Your task to perform on an android device: open app "Microsoft Excel" (install if not already installed) Image 0: 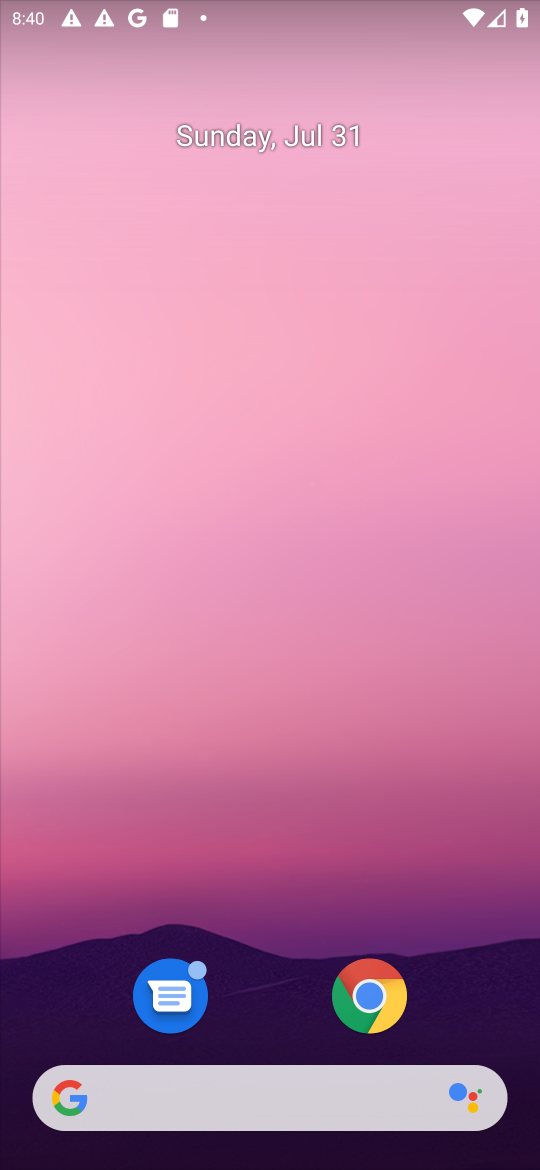
Step 0: press home button
Your task to perform on an android device: open app "Microsoft Excel" (install if not already installed) Image 1: 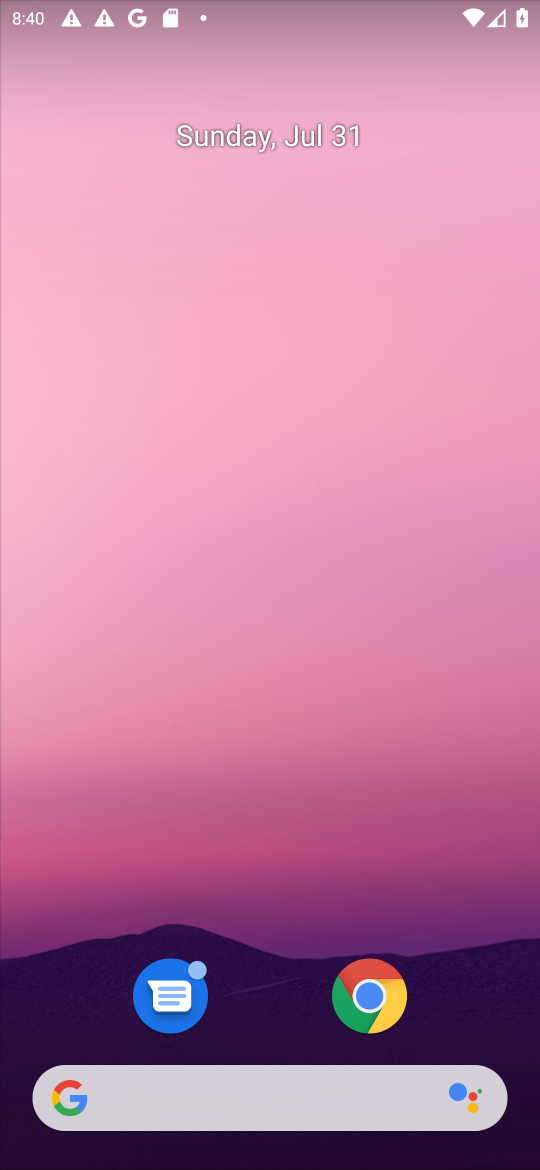
Step 1: drag from (418, 466) to (418, 64)
Your task to perform on an android device: open app "Microsoft Excel" (install if not already installed) Image 2: 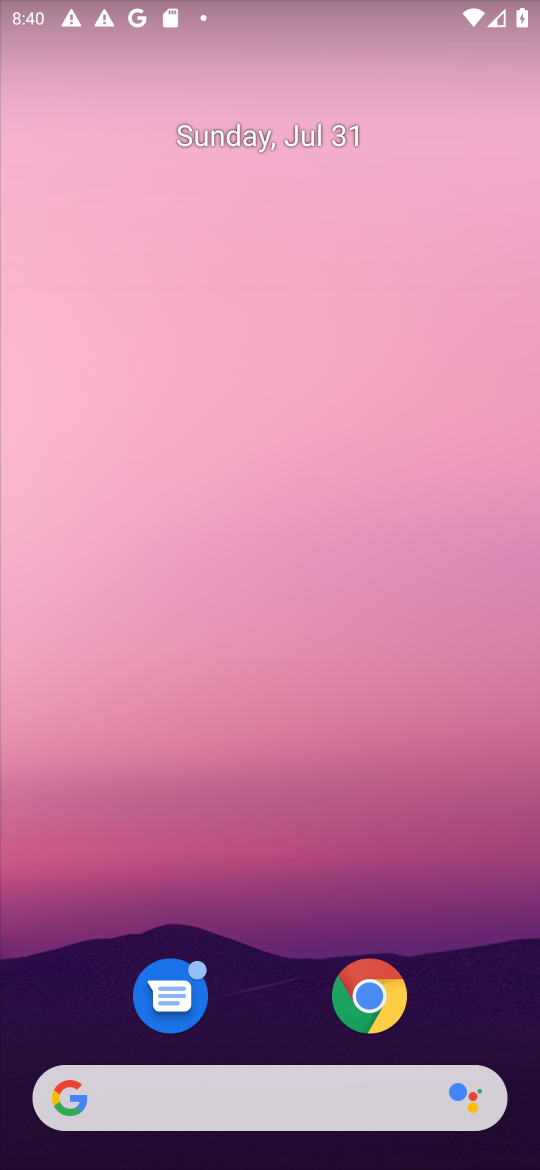
Step 2: drag from (439, 1006) to (445, 96)
Your task to perform on an android device: open app "Microsoft Excel" (install if not already installed) Image 3: 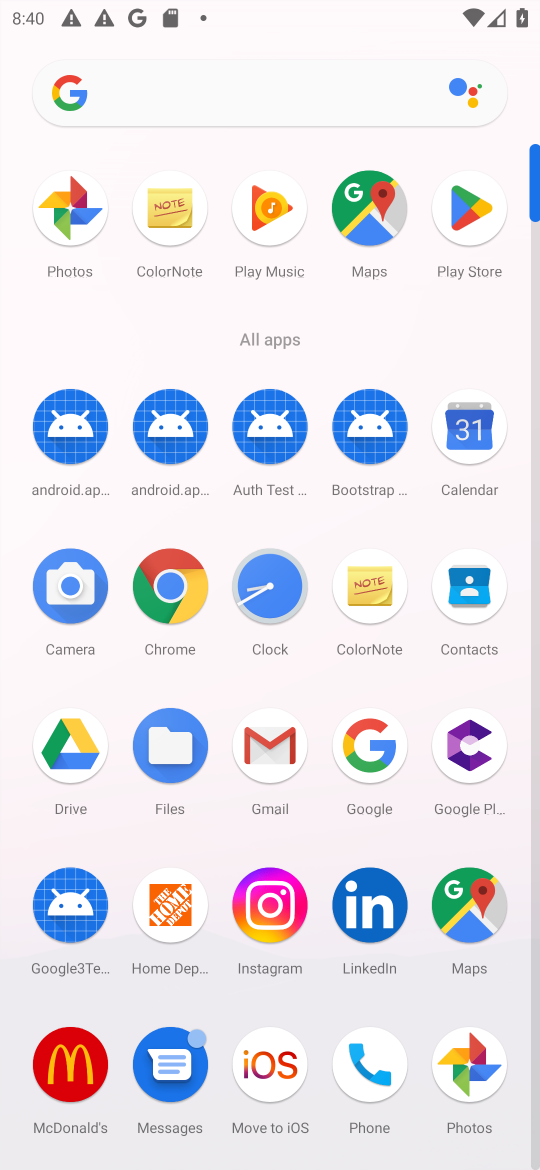
Step 3: click (476, 204)
Your task to perform on an android device: open app "Microsoft Excel" (install if not already installed) Image 4: 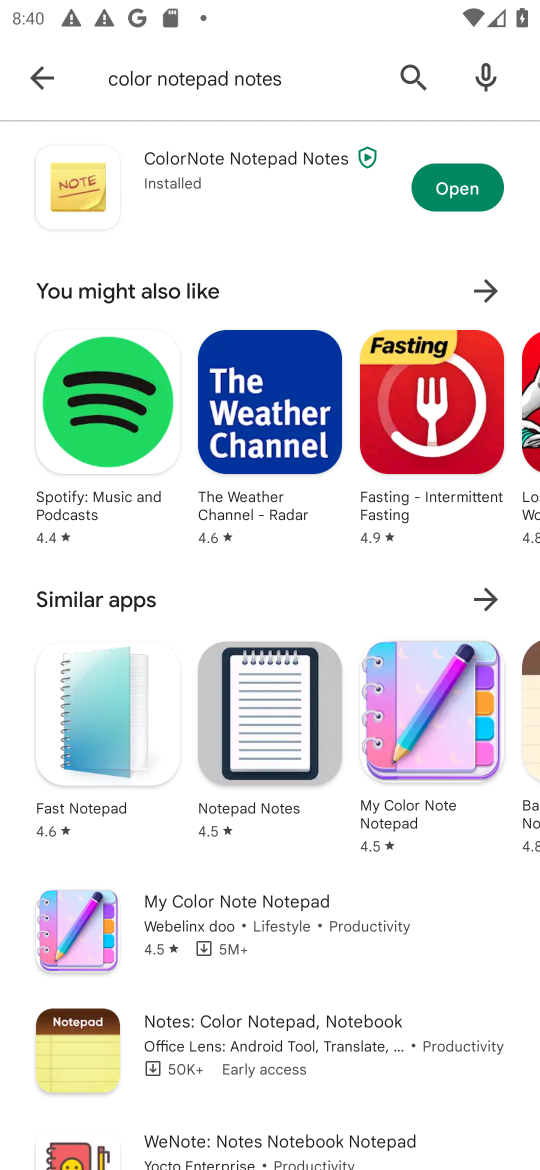
Step 4: click (409, 57)
Your task to perform on an android device: open app "Microsoft Excel" (install if not already installed) Image 5: 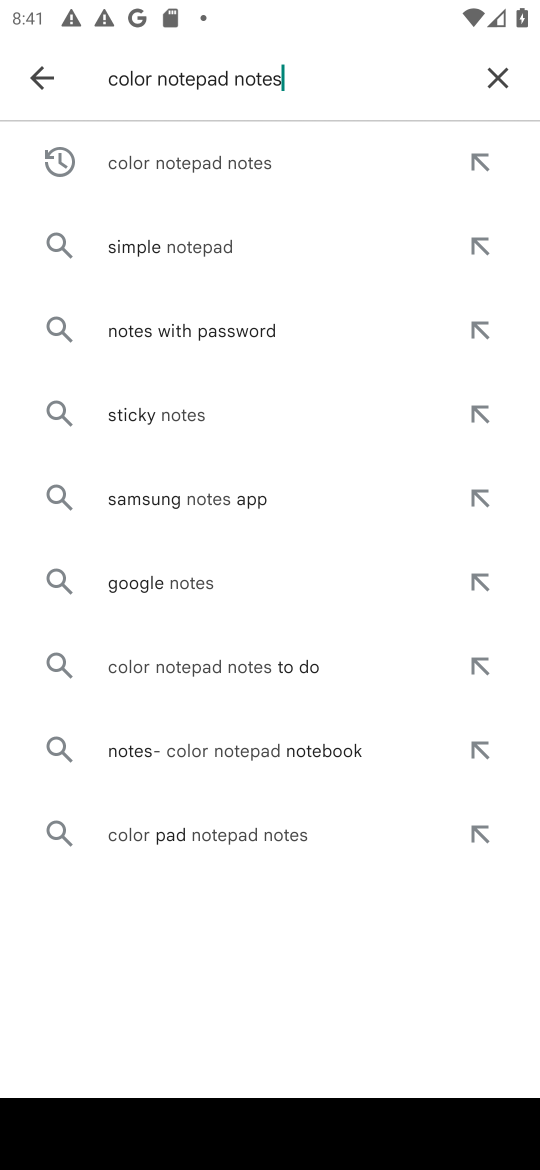
Step 5: click (485, 86)
Your task to perform on an android device: open app "Microsoft Excel" (install if not already installed) Image 6: 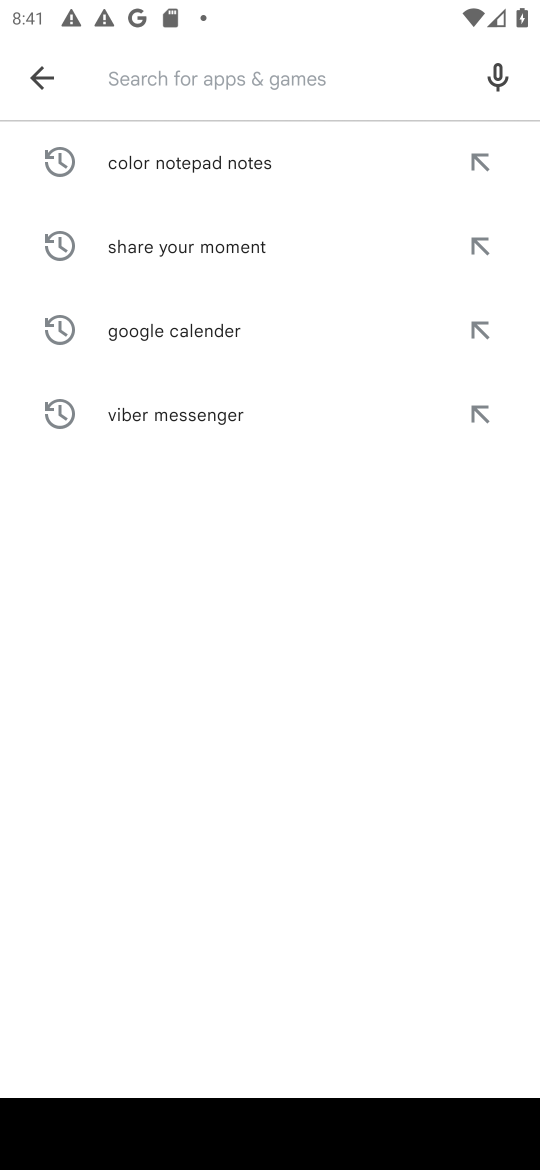
Step 6: click (201, 71)
Your task to perform on an android device: open app "Microsoft Excel" (install if not already installed) Image 7: 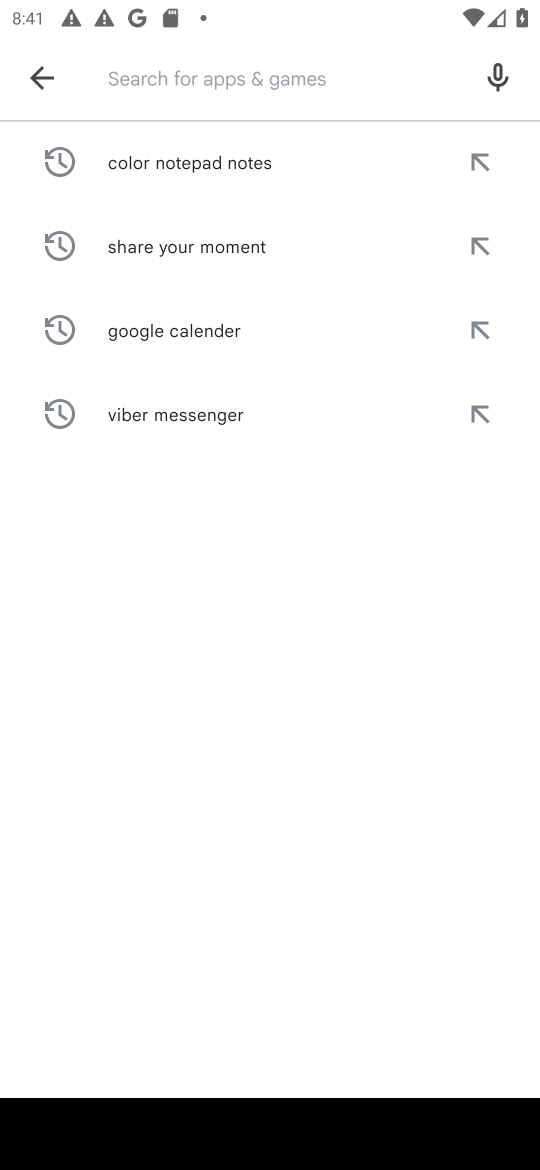
Step 7: type "microsoft excel"
Your task to perform on an android device: open app "Microsoft Excel" (install if not already installed) Image 8: 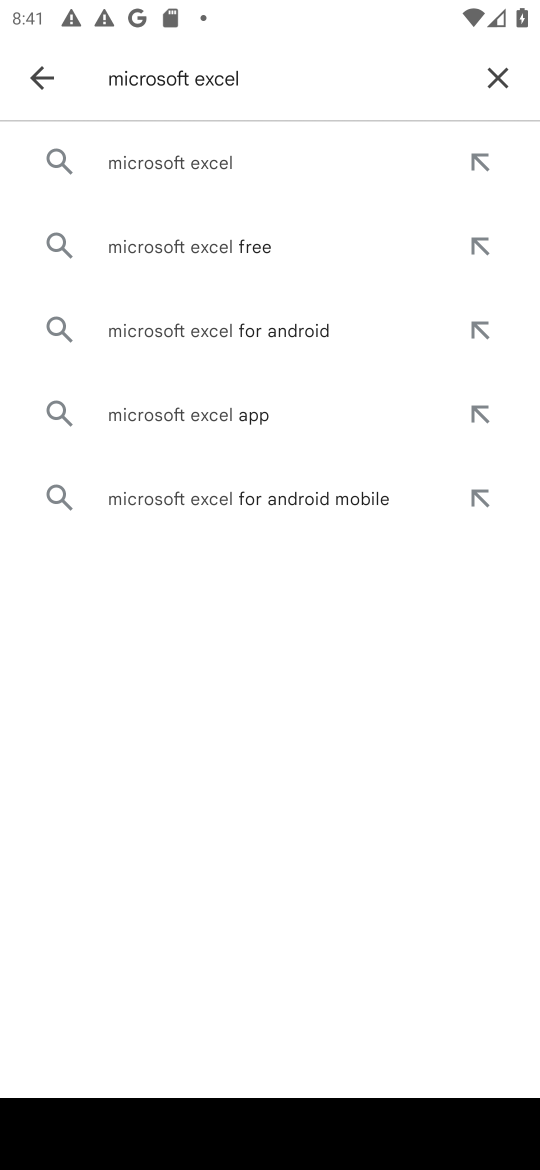
Step 8: click (221, 164)
Your task to perform on an android device: open app "Microsoft Excel" (install if not already installed) Image 9: 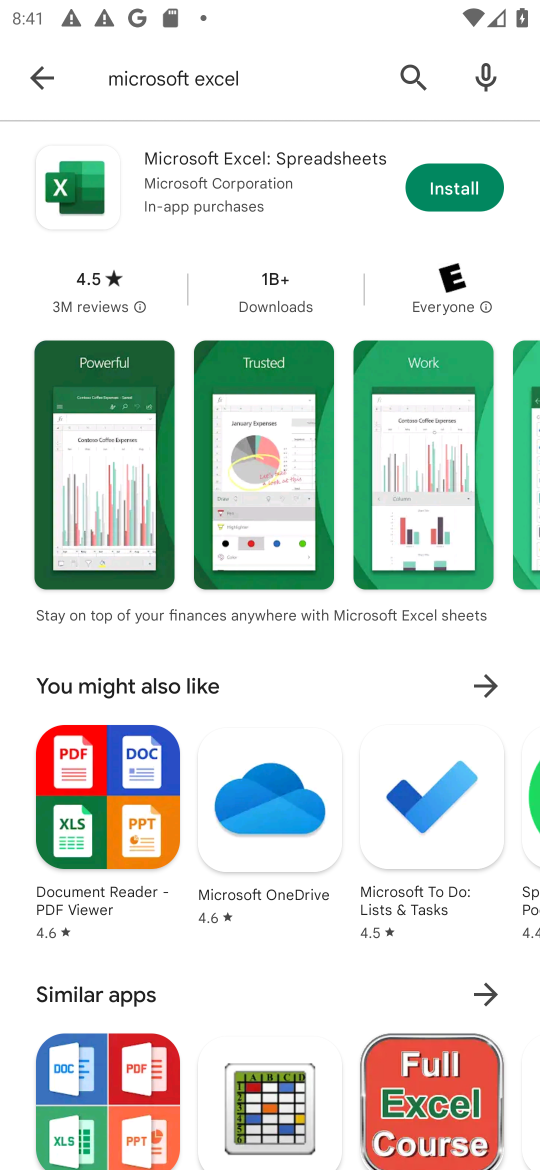
Step 9: click (448, 180)
Your task to perform on an android device: open app "Microsoft Excel" (install if not already installed) Image 10: 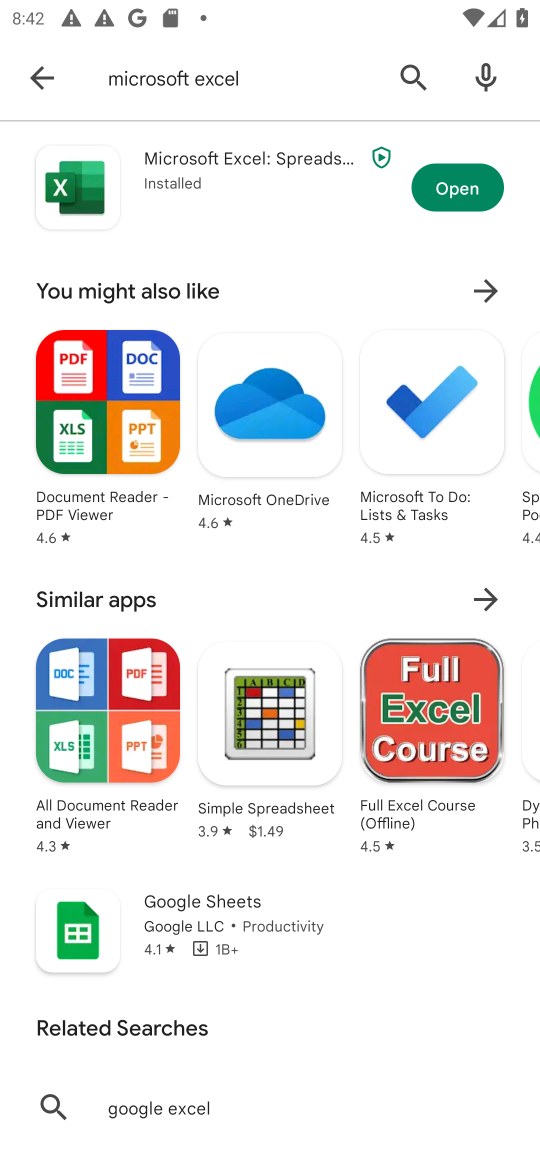
Step 10: click (464, 193)
Your task to perform on an android device: open app "Microsoft Excel" (install if not already installed) Image 11: 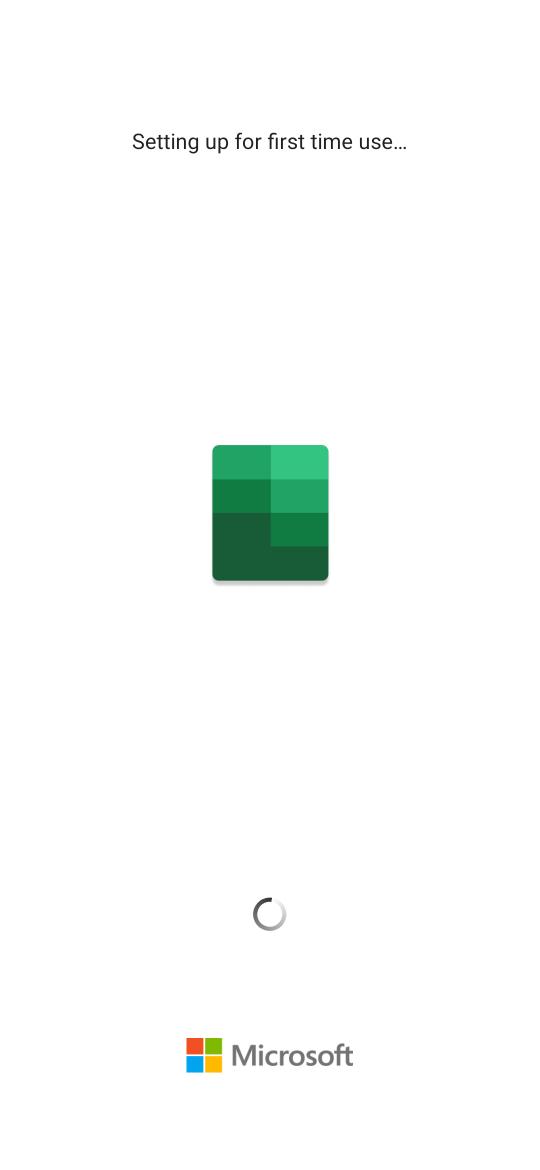
Step 11: task complete